Your task to perform on an android device: Go to eBay Image 0: 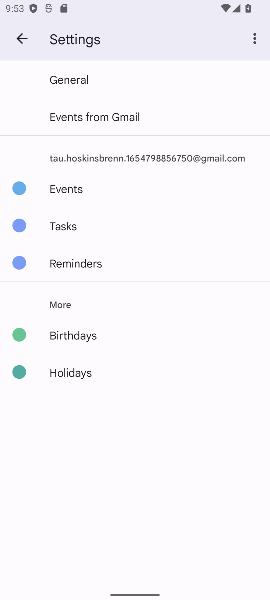
Step 0: press home button
Your task to perform on an android device: Go to eBay Image 1: 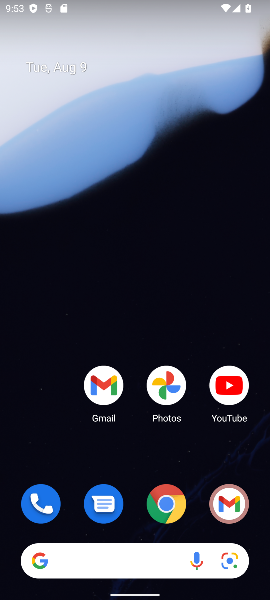
Step 1: click (169, 499)
Your task to perform on an android device: Go to eBay Image 2: 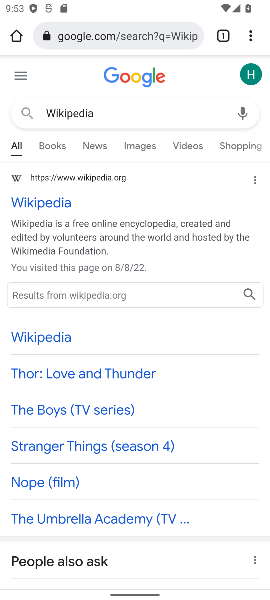
Step 2: click (190, 35)
Your task to perform on an android device: Go to eBay Image 3: 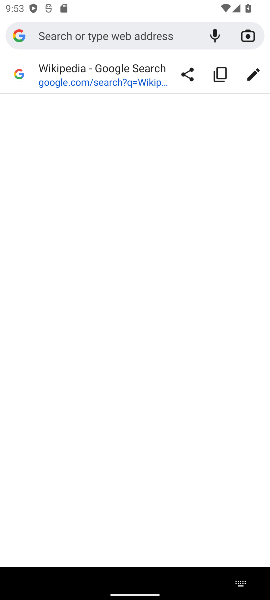
Step 3: type "eBay"
Your task to perform on an android device: Go to eBay Image 4: 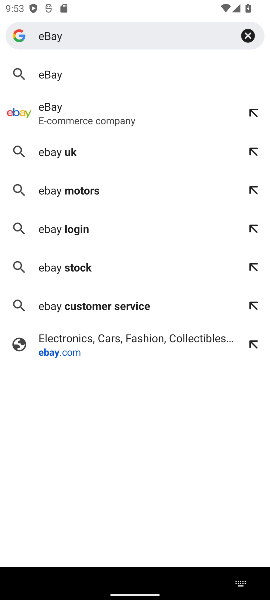
Step 4: click (43, 70)
Your task to perform on an android device: Go to eBay Image 5: 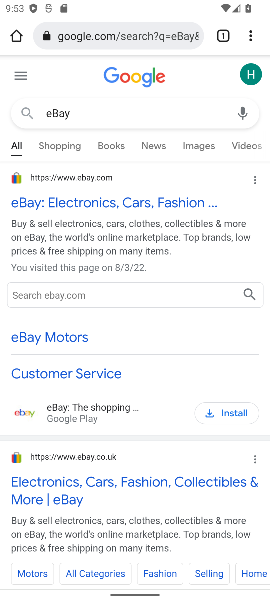
Step 5: task complete